Your task to perform on an android device: Go to Amazon Image 0: 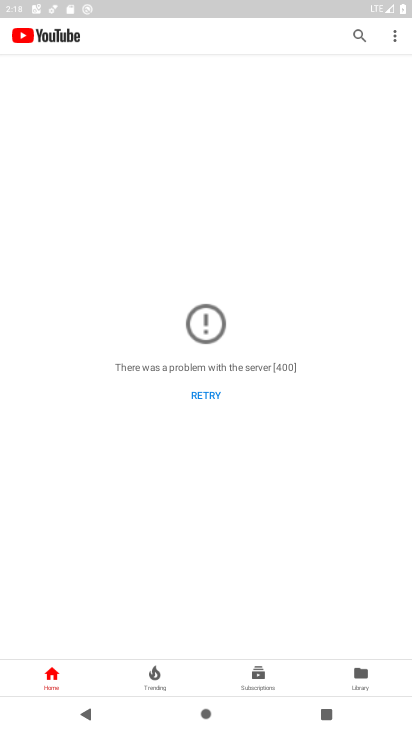
Step 0: press home button
Your task to perform on an android device: Go to Amazon Image 1: 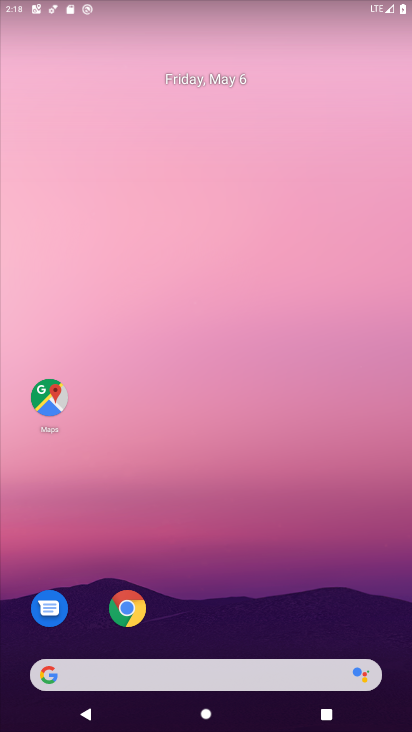
Step 1: click (137, 607)
Your task to perform on an android device: Go to Amazon Image 2: 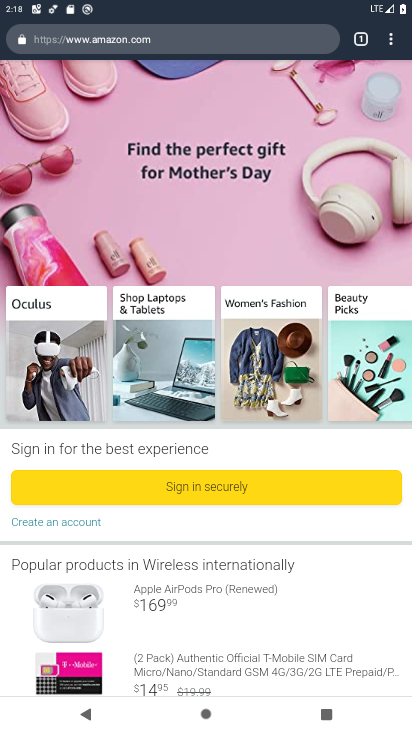
Step 2: click (253, 35)
Your task to perform on an android device: Go to Amazon Image 3: 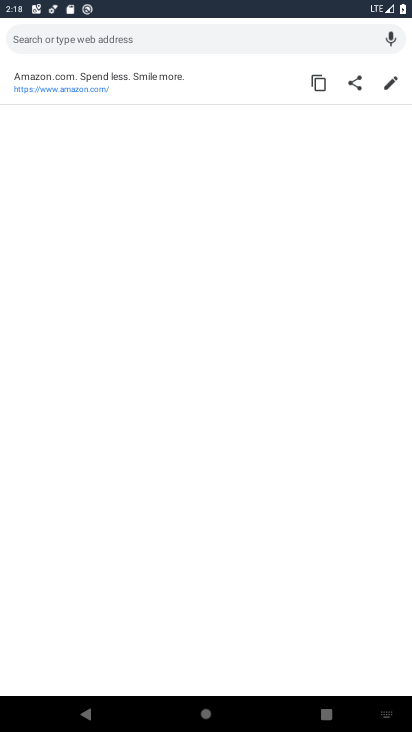
Step 3: type "amazon"
Your task to perform on an android device: Go to Amazon Image 4: 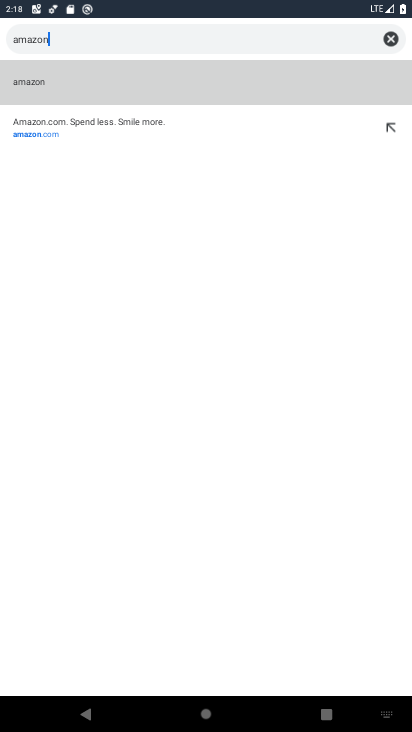
Step 4: click (69, 84)
Your task to perform on an android device: Go to Amazon Image 5: 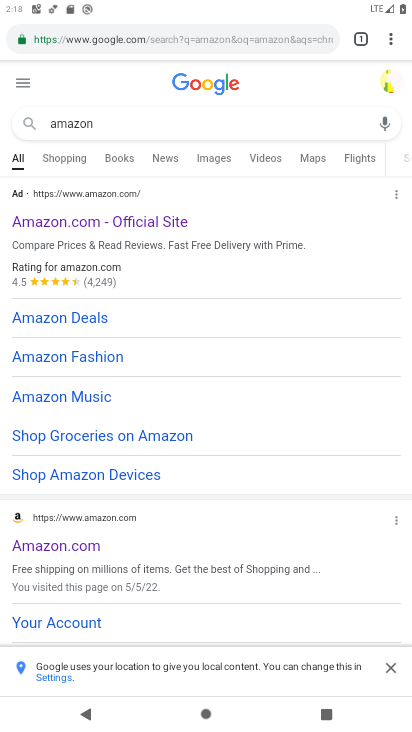
Step 5: click (388, 663)
Your task to perform on an android device: Go to Amazon Image 6: 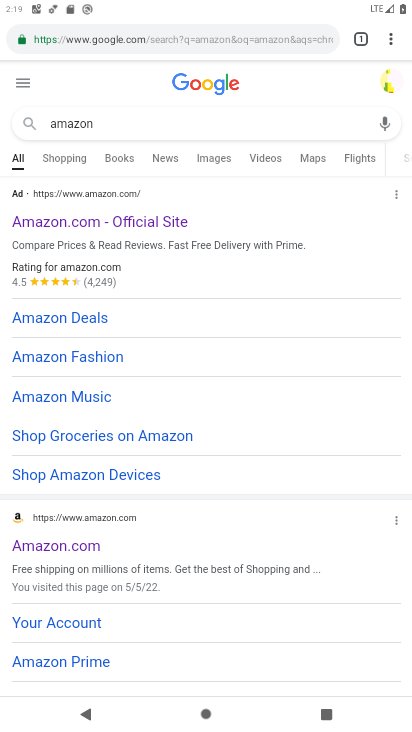
Step 6: task complete